Your task to perform on an android device: Go to accessibility settings Image 0: 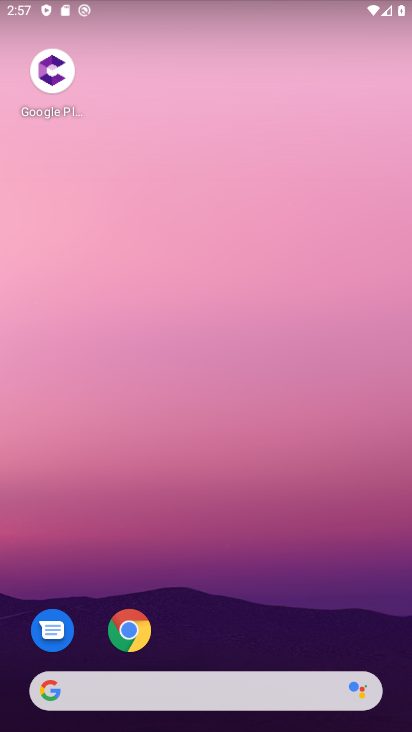
Step 0: drag from (178, 696) to (256, 6)
Your task to perform on an android device: Go to accessibility settings Image 1: 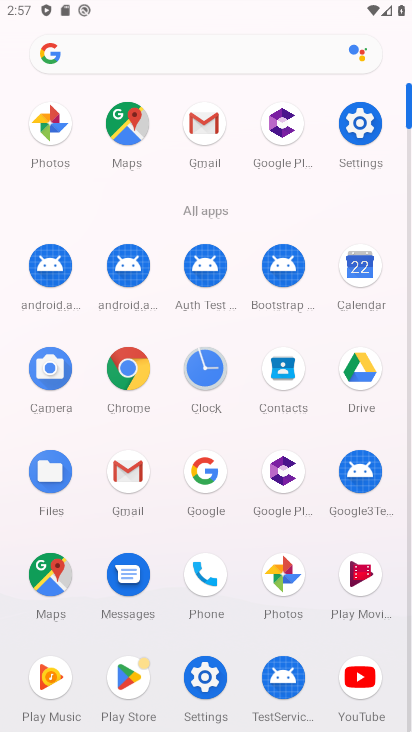
Step 1: click (353, 98)
Your task to perform on an android device: Go to accessibility settings Image 2: 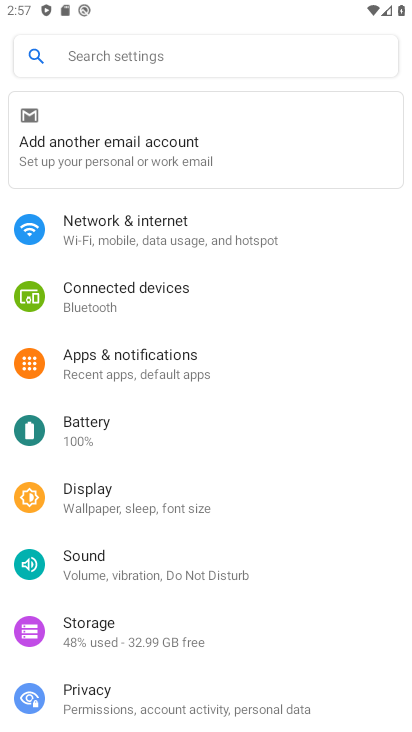
Step 2: drag from (243, 590) to (125, 24)
Your task to perform on an android device: Go to accessibility settings Image 3: 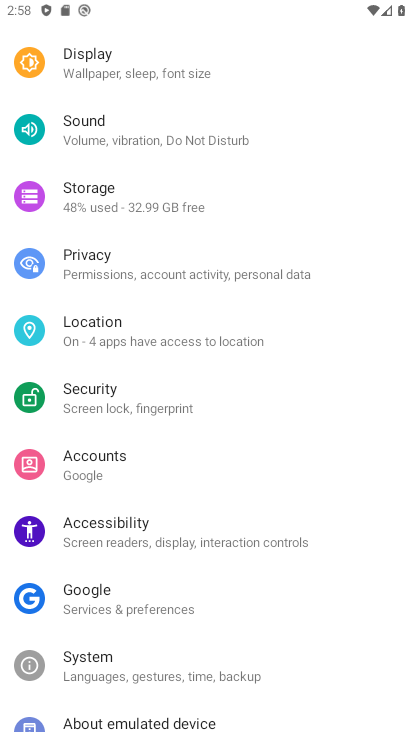
Step 3: click (178, 510)
Your task to perform on an android device: Go to accessibility settings Image 4: 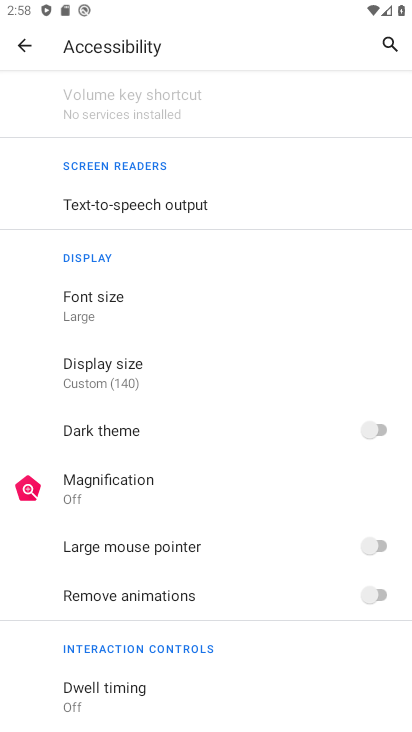
Step 4: task complete